Your task to perform on an android device: turn off smart reply in the gmail app Image 0: 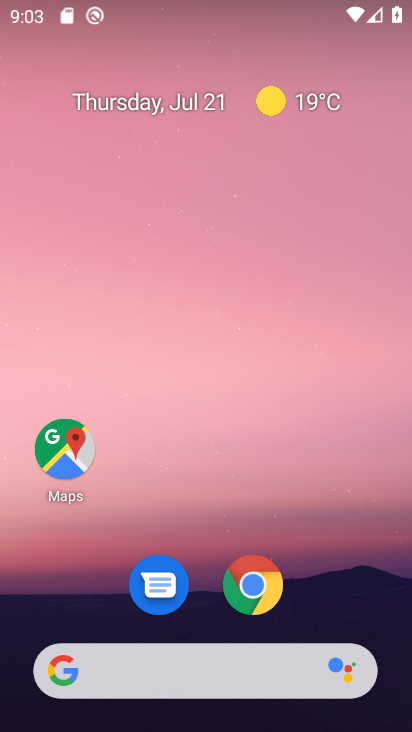
Step 0: drag from (306, 604) to (316, 51)
Your task to perform on an android device: turn off smart reply in the gmail app Image 1: 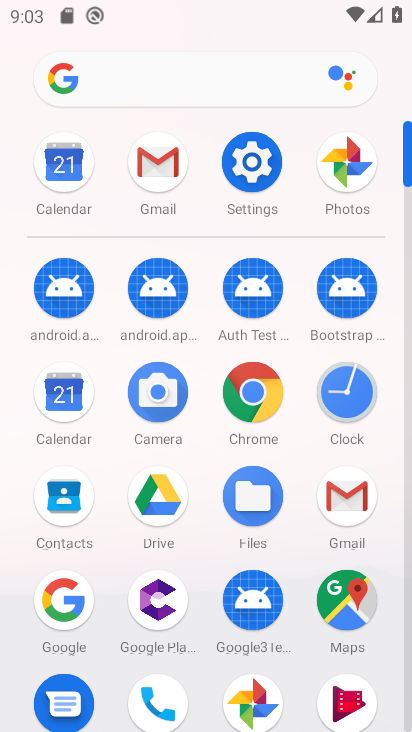
Step 1: click (163, 162)
Your task to perform on an android device: turn off smart reply in the gmail app Image 2: 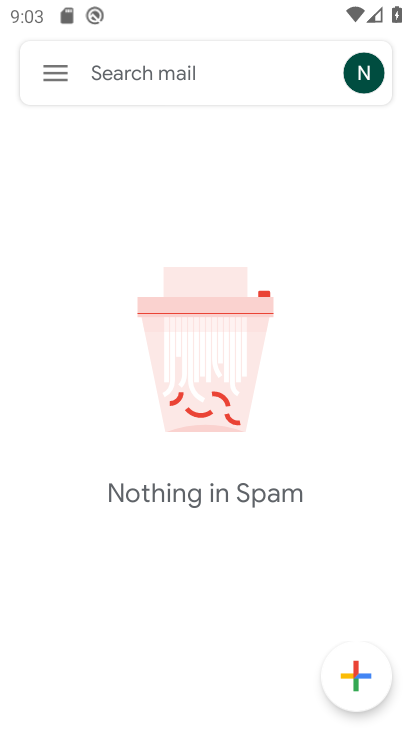
Step 2: click (60, 73)
Your task to perform on an android device: turn off smart reply in the gmail app Image 3: 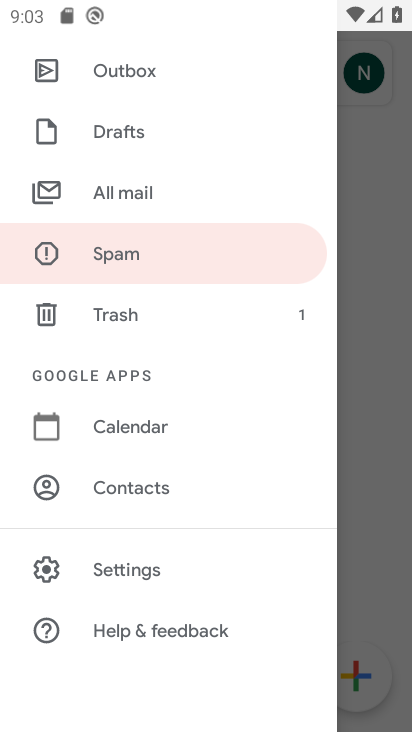
Step 3: click (119, 567)
Your task to perform on an android device: turn off smart reply in the gmail app Image 4: 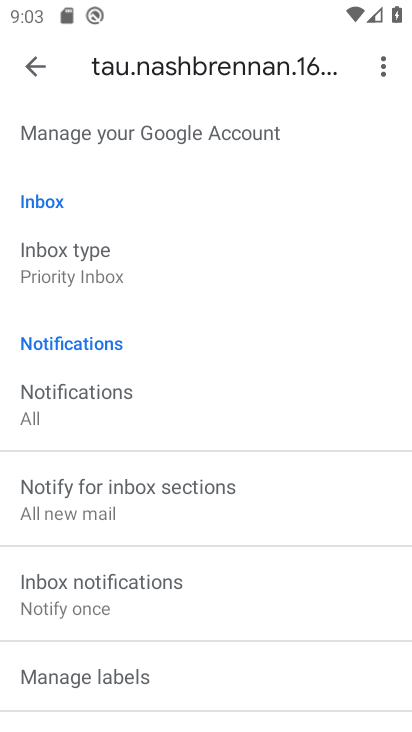
Step 4: task complete